Your task to perform on an android device: What's on my calendar today? Image 0: 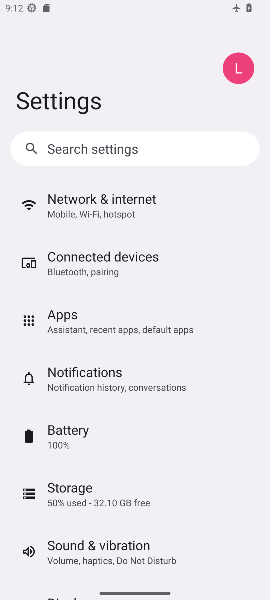
Step 0: press home button
Your task to perform on an android device: What's on my calendar today? Image 1: 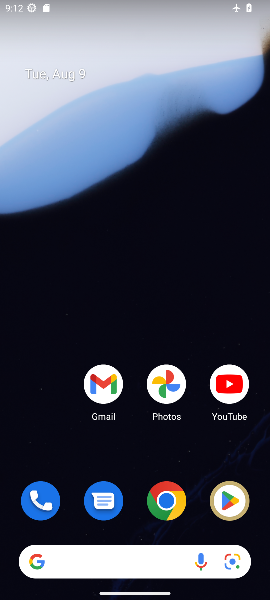
Step 1: drag from (138, 442) to (150, 49)
Your task to perform on an android device: What's on my calendar today? Image 2: 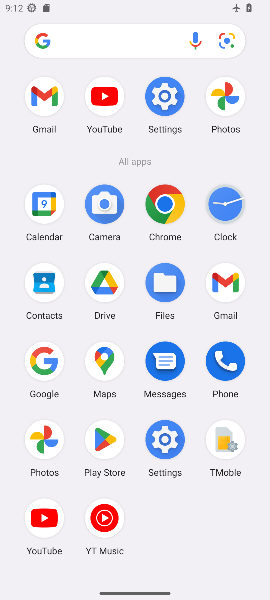
Step 2: click (48, 211)
Your task to perform on an android device: What's on my calendar today? Image 3: 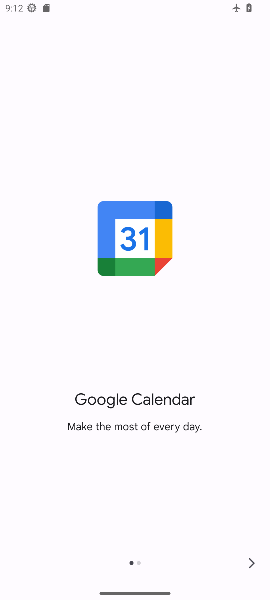
Step 3: click (253, 563)
Your task to perform on an android device: What's on my calendar today? Image 4: 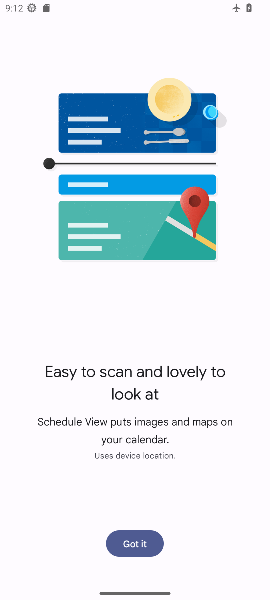
Step 4: click (150, 546)
Your task to perform on an android device: What's on my calendar today? Image 5: 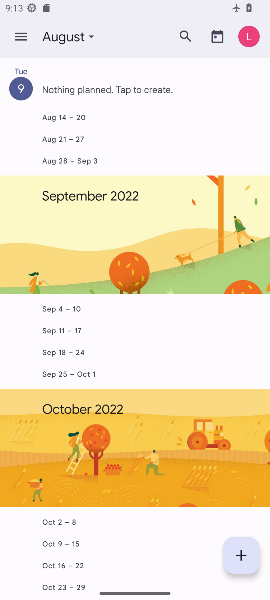
Step 5: task complete